Your task to perform on an android device: change the upload size in google photos Image 0: 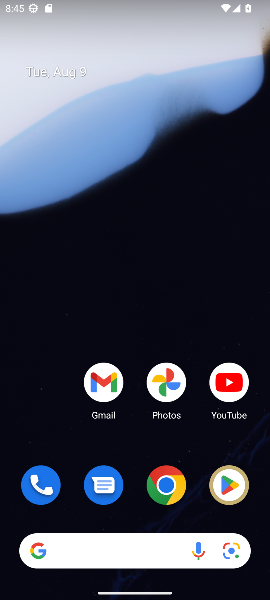
Step 0: drag from (201, 451) to (182, 403)
Your task to perform on an android device: change the upload size in google photos Image 1: 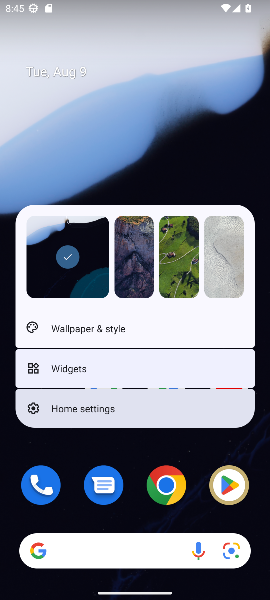
Step 1: click (150, 140)
Your task to perform on an android device: change the upload size in google photos Image 2: 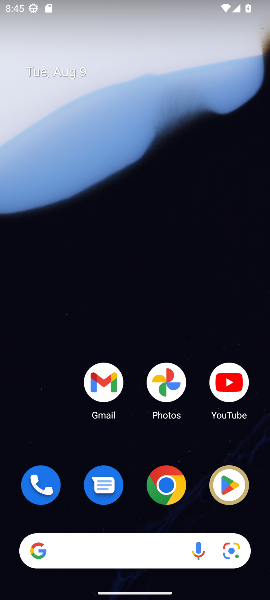
Step 2: click (173, 392)
Your task to perform on an android device: change the upload size in google photos Image 3: 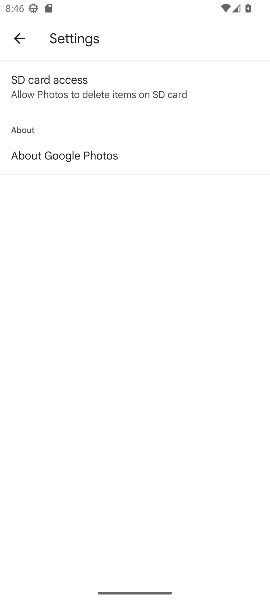
Step 3: click (16, 35)
Your task to perform on an android device: change the upload size in google photos Image 4: 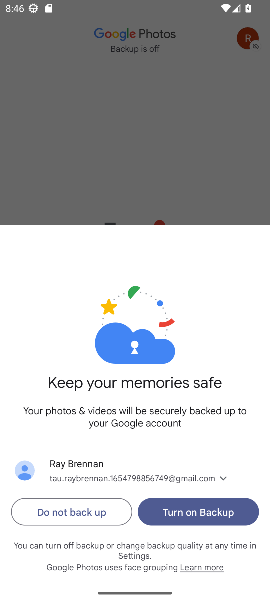
Step 4: click (187, 506)
Your task to perform on an android device: change the upload size in google photos Image 5: 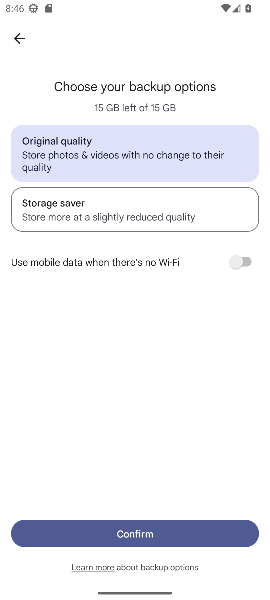
Step 5: click (198, 531)
Your task to perform on an android device: change the upload size in google photos Image 6: 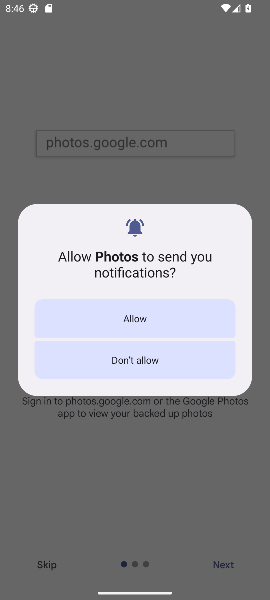
Step 6: click (148, 317)
Your task to perform on an android device: change the upload size in google photos Image 7: 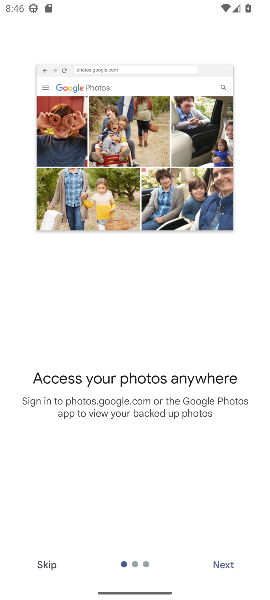
Step 7: click (43, 560)
Your task to perform on an android device: change the upload size in google photos Image 8: 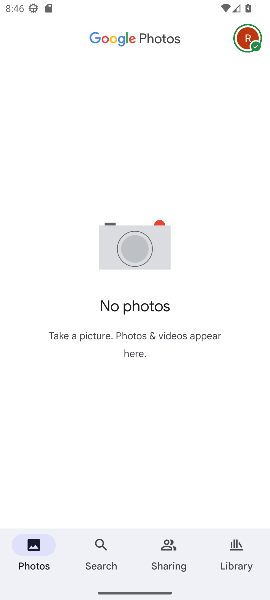
Step 8: click (255, 34)
Your task to perform on an android device: change the upload size in google photos Image 9: 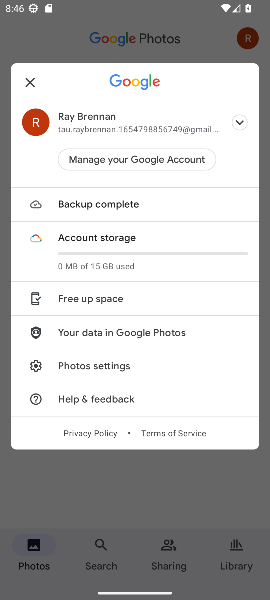
Step 9: click (130, 363)
Your task to perform on an android device: change the upload size in google photos Image 10: 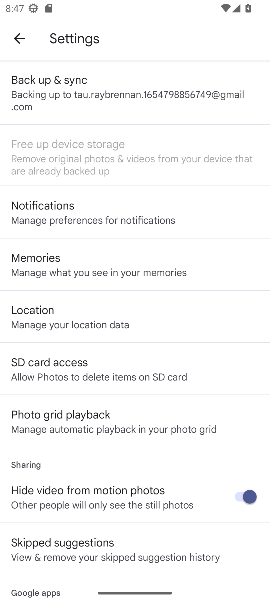
Step 10: click (55, 75)
Your task to perform on an android device: change the upload size in google photos Image 11: 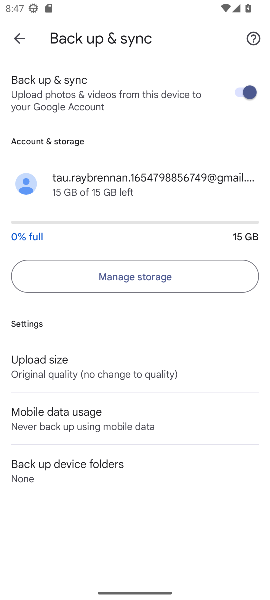
Step 11: click (68, 365)
Your task to perform on an android device: change the upload size in google photos Image 12: 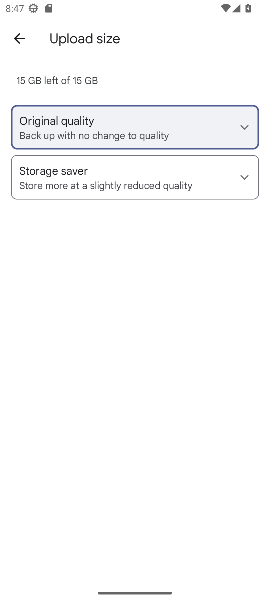
Step 12: click (32, 175)
Your task to perform on an android device: change the upload size in google photos Image 13: 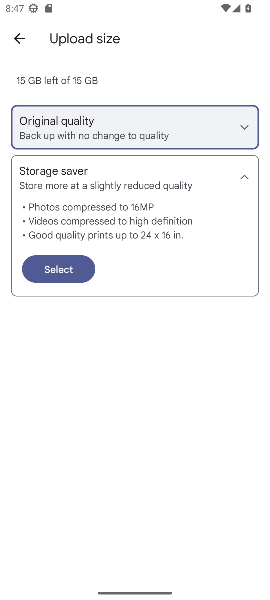
Step 13: click (66, 270)
Your task to perform on an android device: change the upload size in google photos Image 14: 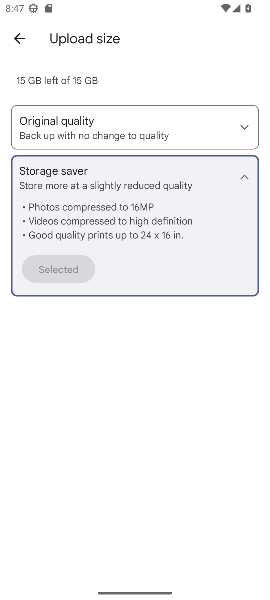
Step 14: task complete